Your task to perform on an android device: Go to CNN.com Image 0: 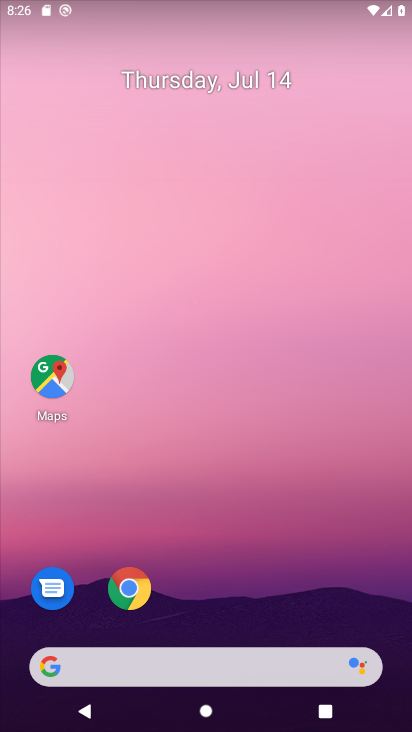
Step 0: drag from (328, 586) to (349, 49)
Your task to perform on an android device: Go to CNN.com Image 1: 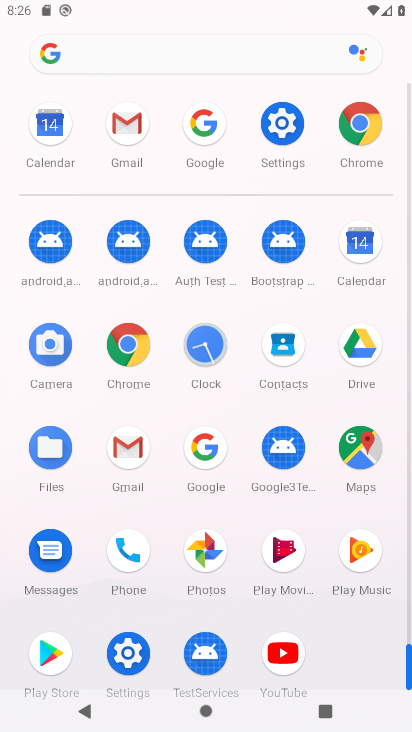
Step 1: click (129, 348)
Your task to perform on an android device: Go to CNN.com Image 2: 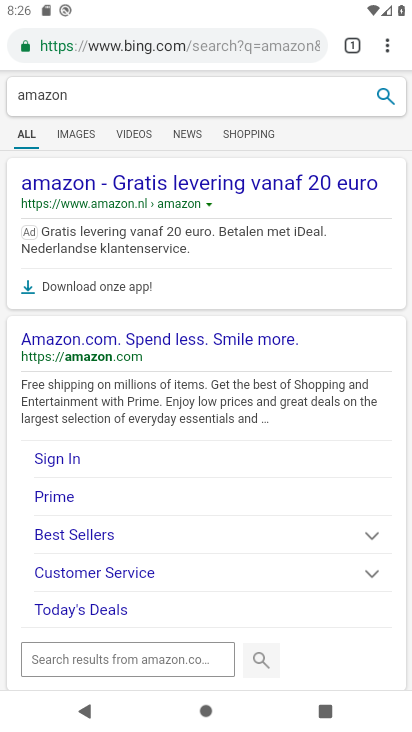
Step 2: click (256, 44)
Your task to perform on an android device: Go to CNN.com Image 3: 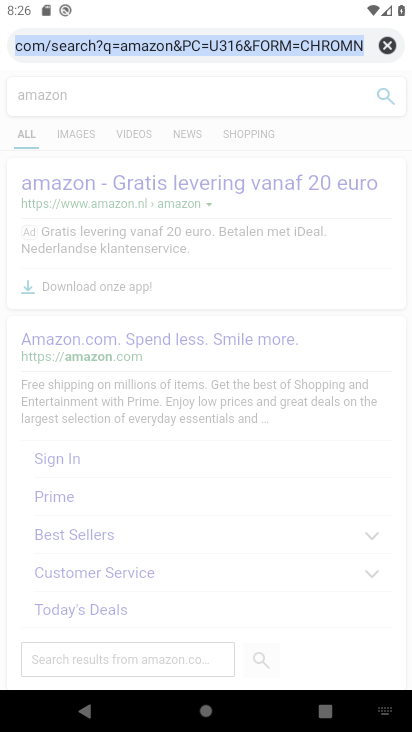
Step 3: type "cnn.com"
Your task to perform on an android device: Go to CNN.com Image 4: 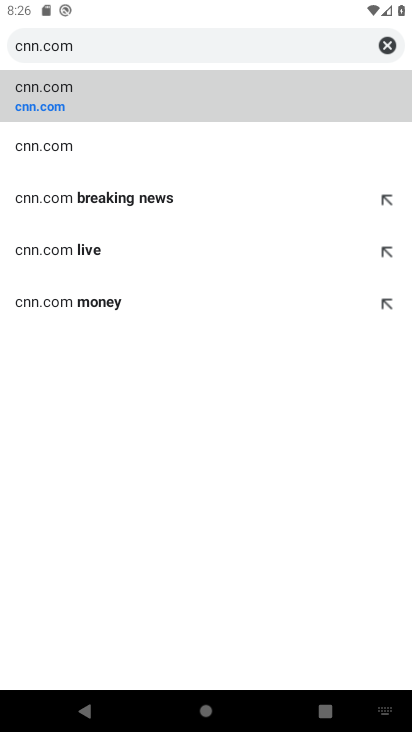
Step 4: click (163, 89)
Your task to perform on an android device: Go to CNN.com Image 5: 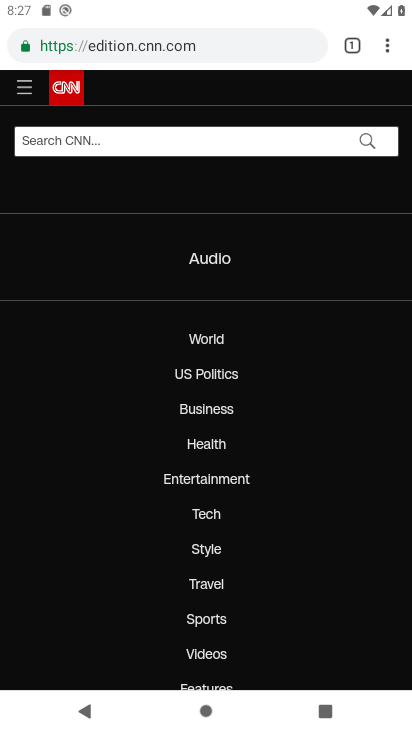
Step 5: task complete